Your task to perform on an android device: clear history in the chrome app Image 0: 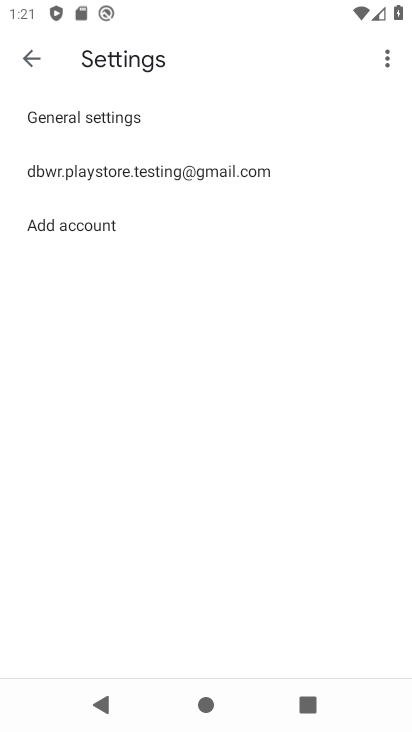
Step 0: press home button
Your task to perform on an android device: clear history in the chrome app Image 1: 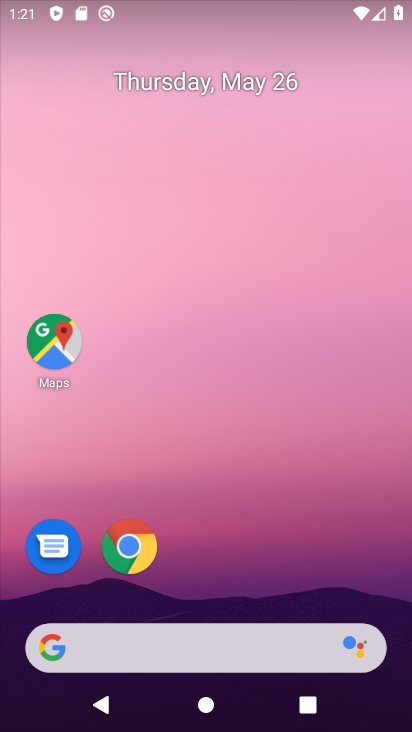
Step 1: click (129, 544)
Your task to perform on an android device: clear history in the chrome app Image 2: 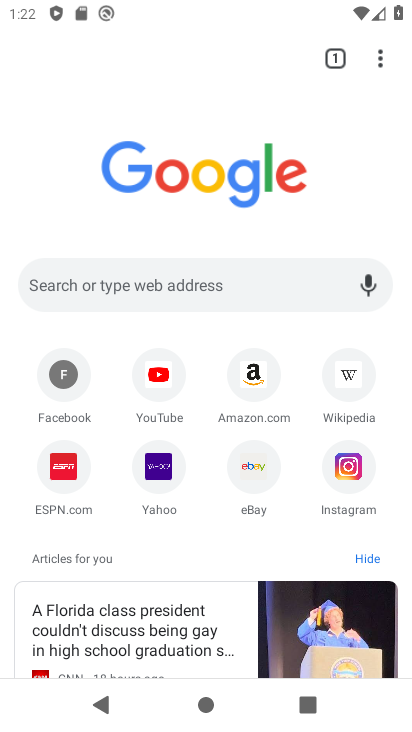
Step 2: click (371, 61)
Your task to perform on an android device: clear history in the chrome app Image 3: 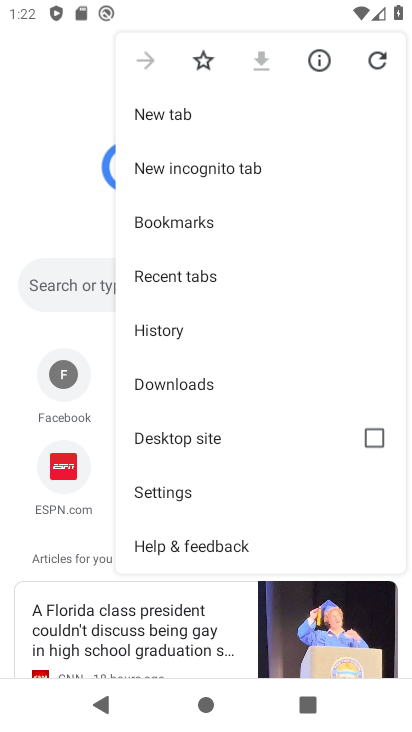
Step 3: click (176, 485)
Your task to perform on an android device: clear history in the chrome app Image 4: 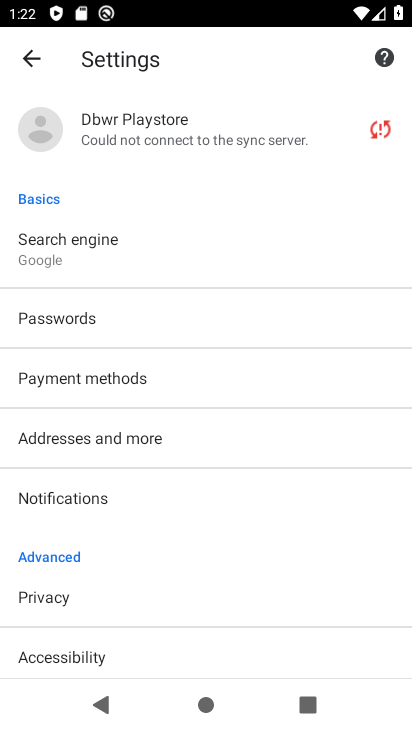
Step 4: drag from (215, 604) to (275, 249)
Your task to perform on an android device: clear history in the chrome app Image 5: 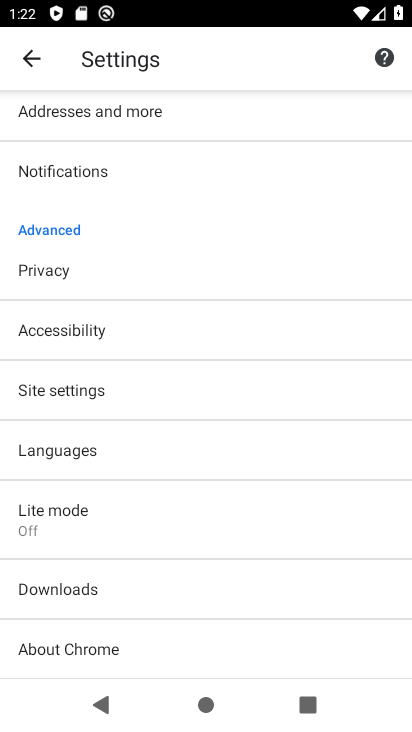
Step 5: click (65, 278)
Your task to perform on an android device: clear history in the chrome app Image 6: 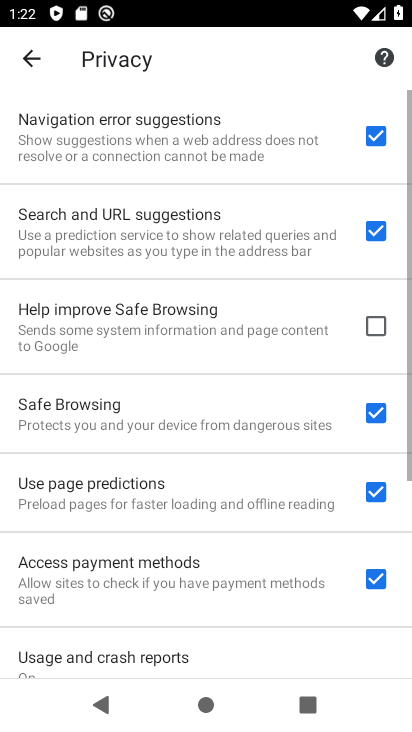
Step 6: drag from (214, 602) to (224, 73)
Your task to perform on an android device: clear history in the chrome app Image 7: 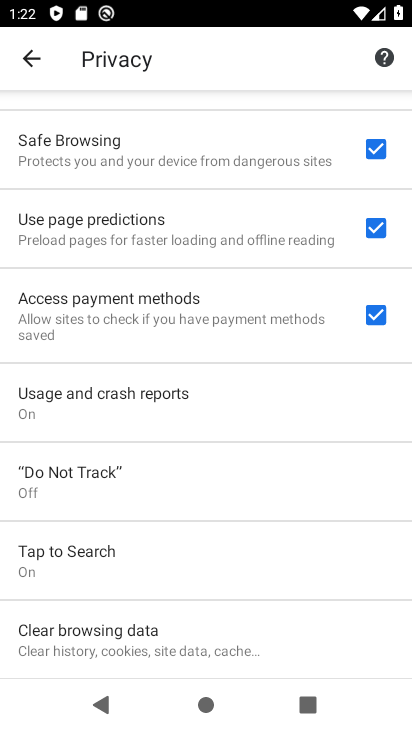
Step 7: click (92, 620)
Your task to perform on an android device: clear history in the chrome app Image 8: 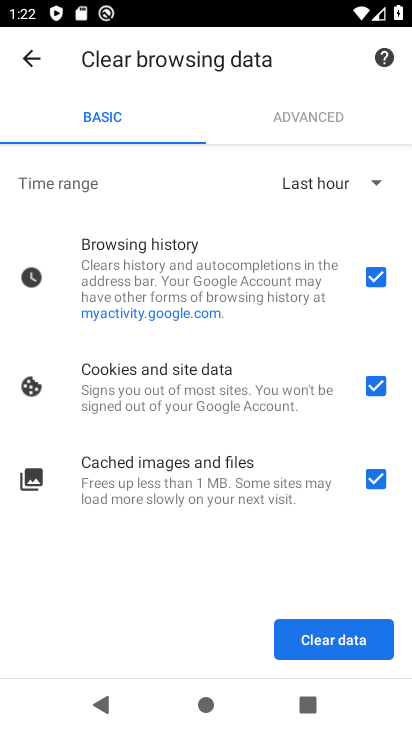
Step 8: click (375, 385)
Your task to perform on an android device: clear history in the chrome app Image 9: 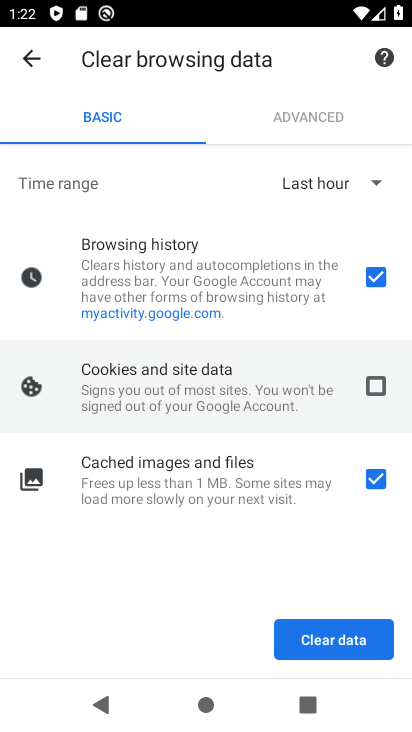
Step 9: click (374, 469)
Your task to perform on an android device: clear history in the chrome app Image 10: 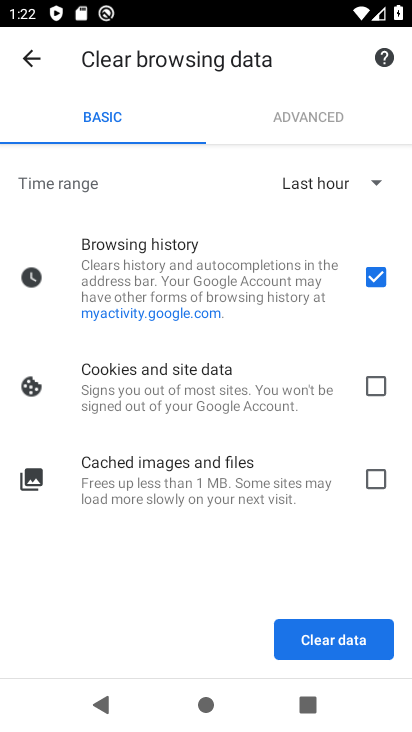
Step 10: click (332, 630)
Your task to perform on an android device: clear history in the chrome app Image 11: 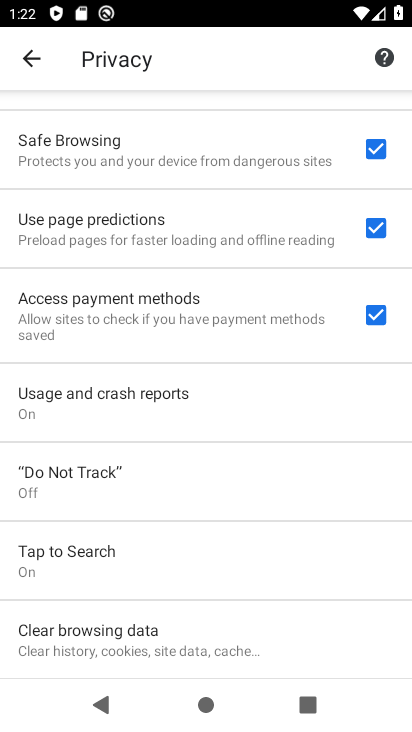
Step 11: task complete